Your task to perform on an android device: Open Google Chrome and click the shortcut for Amazon.com Image 0: 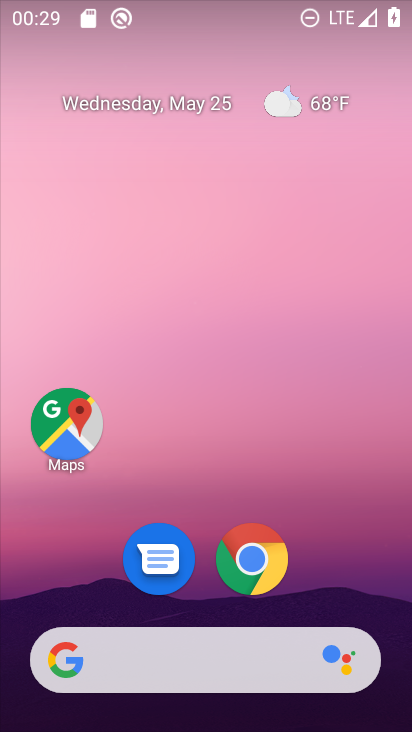
Step 0: click (258, 556)
Your task to perform on an android device: Open Google Chrome and click the shortcut for Amazon.com Image 1: 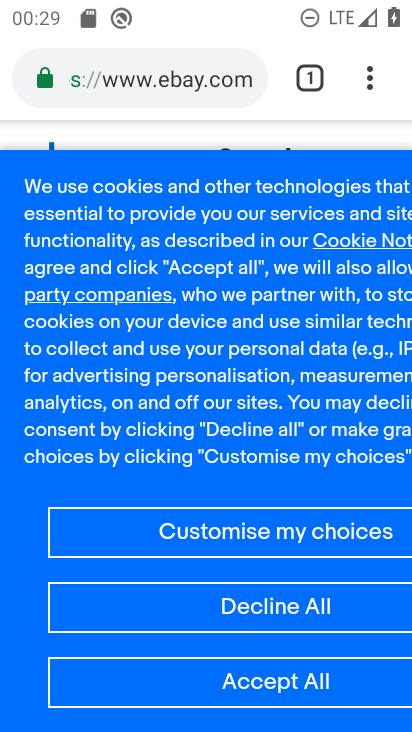
Step 1: click (366, 88)
Your task to perform on an android device: Open Google Chrome and click the shortcut for Amazon.com Image 2: 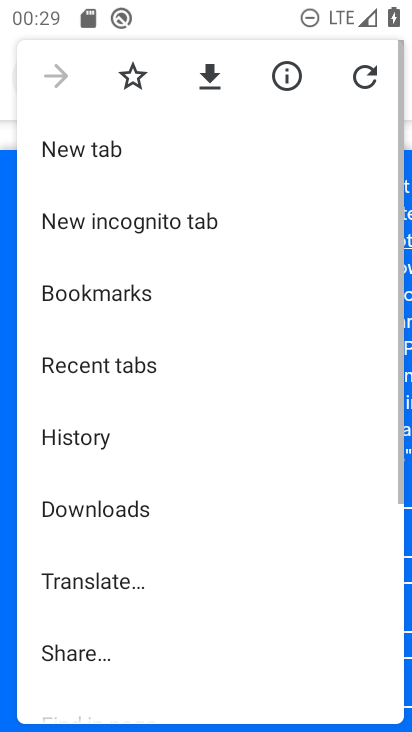
Step 2: click (108, 145)
Your task to perform on an android device: Open Google Chrome and click the shortcut for Amazon.com Image 3: 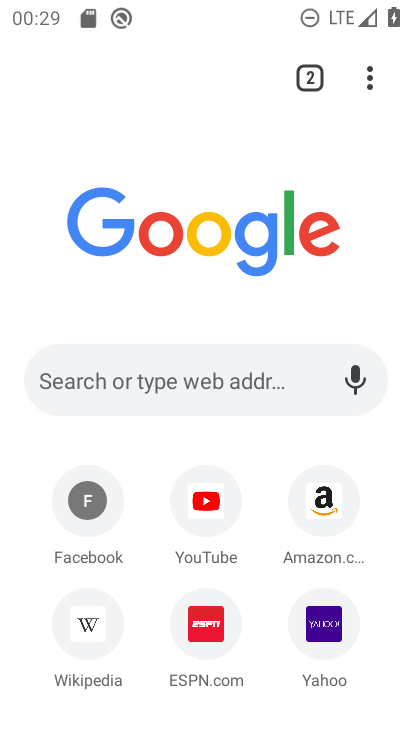
Step 3: click (328, 495)
Your task to perform on an android device: Open Google Chrome and click the shortcut for Amazon.com Image 4: 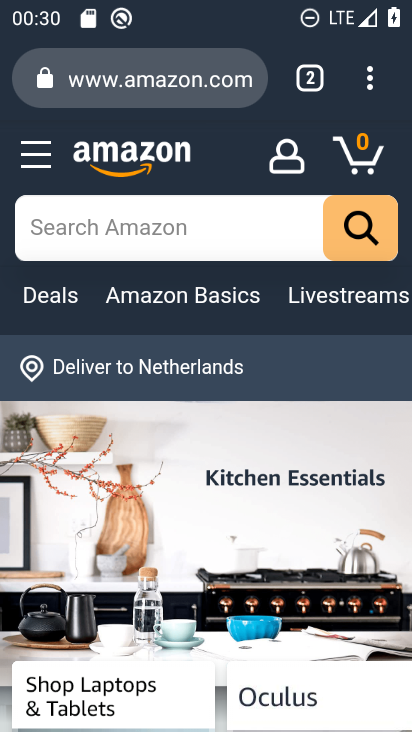
Step 4: task complete